Your task to perform on an android device: toggle sleep mode Image 0: 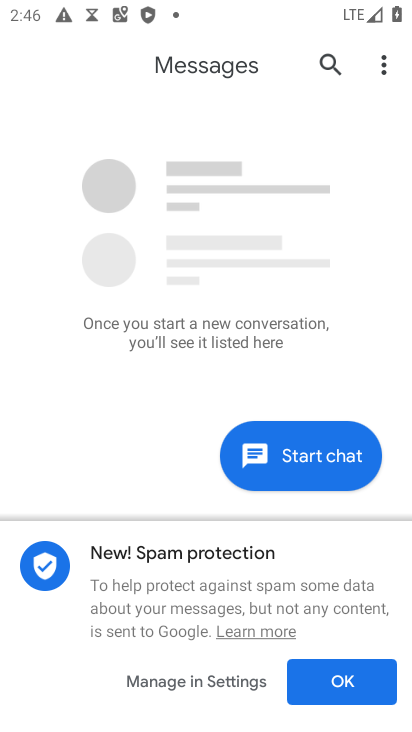
Step 0: press back button
Your task to perform on an android device: toggle sleep mode Image 1: 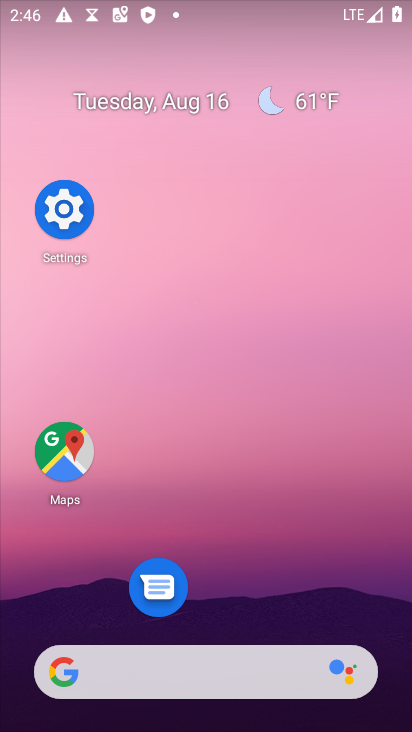
Step 1: click (46, 221)
Your task to perform on an android device: toggle sleep mode Image 2: 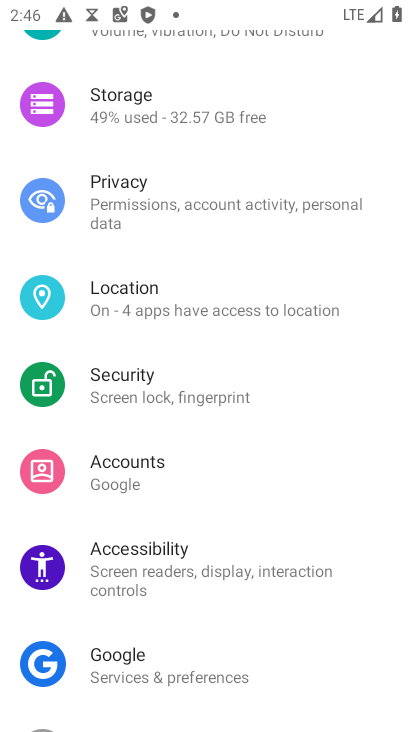
Step 2: drag from (289, 229) to (280, 690)
Your task to perform on an android device: toggle sleep mode Image 3: 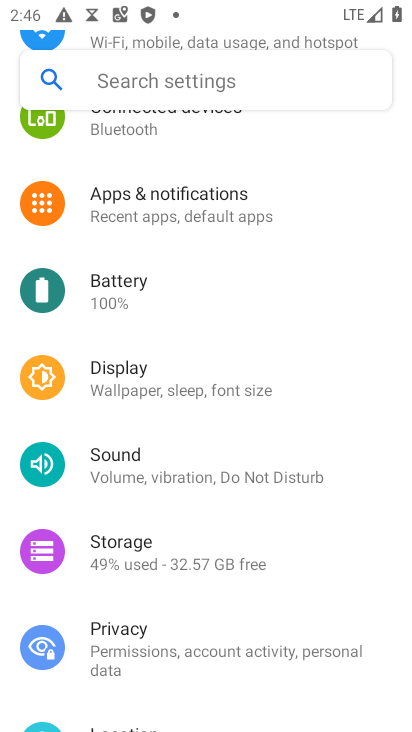
Step 3: click (145, 63)
Your task to perform on an android device: toggle sleep mode Image 4: 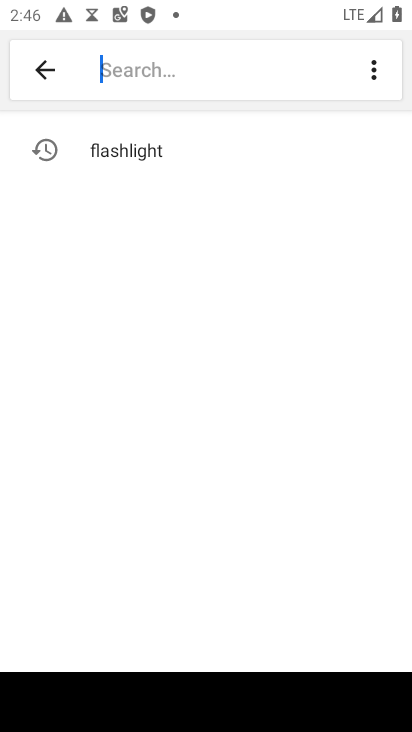
Step 4: type "sleep mode"
Your task to perform on an android device: toggle sleep mode Image 5: 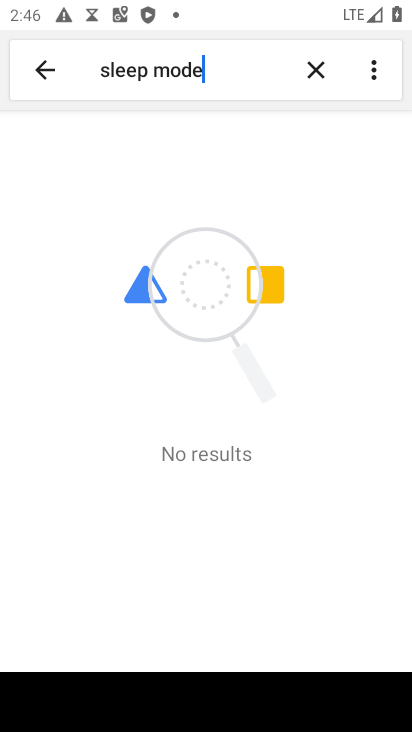
Step 5: task complete